Your task to perform on an android device: open chrome and create a bookmark for the current page Image 0: 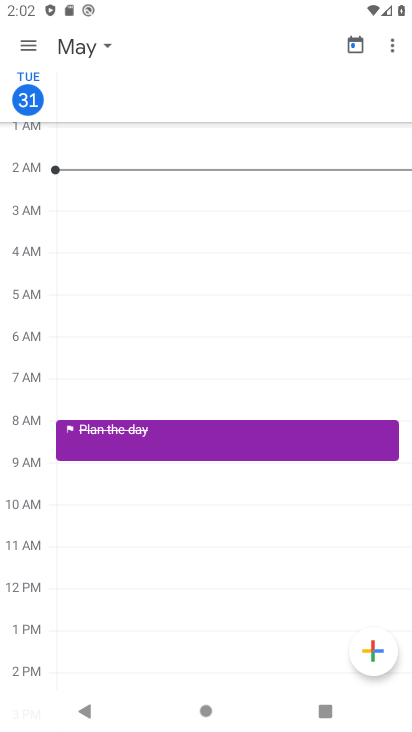
Step 0: press home button
Your task to perform on an android device: open chrome and create a bookmark for the current page Image 1: 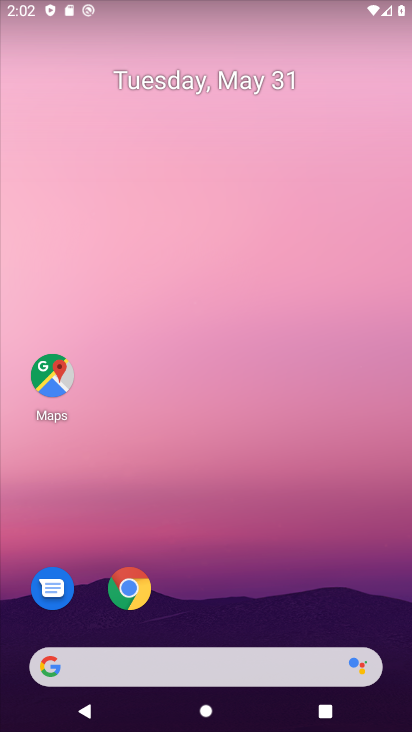
Step 1: click (136, 586)
Your task to perform on an android device: open chrome and create a bookmark for the current page Image 2: 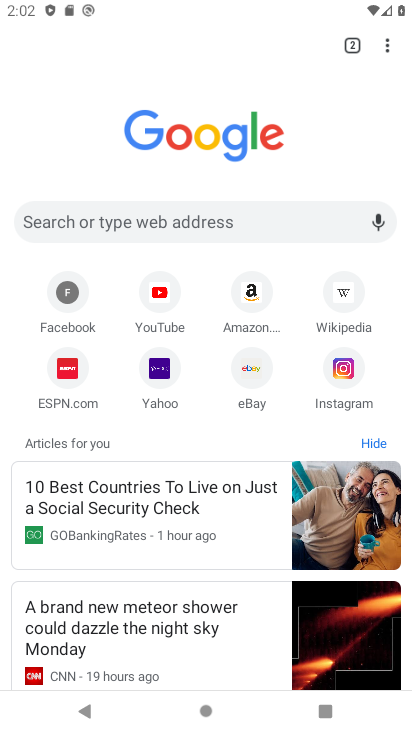
Step 2: click (388, 42)
Your task to perform on an android device: open chrome and create a bookmark for the current page Image 3: 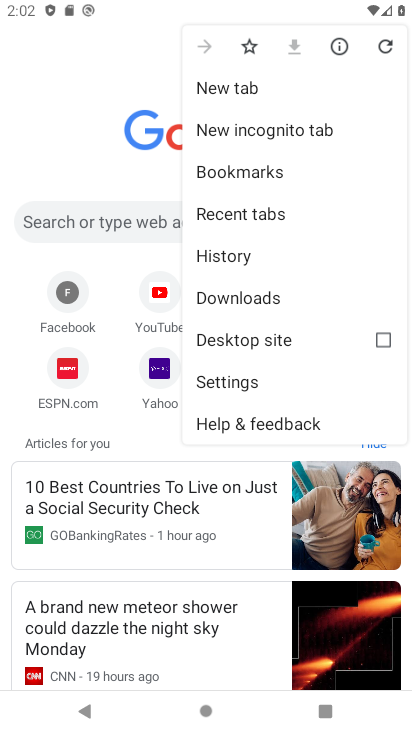
Step 3: click (250, 56)
Your task to perform on an android device: open chrome and create a bookmark for the current page Image 4: 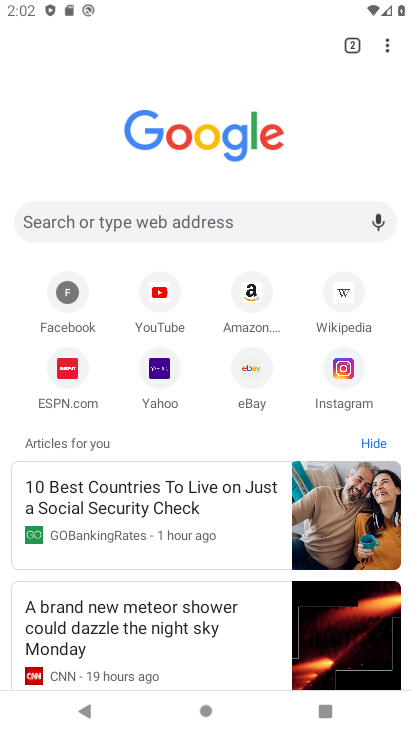
Step 4: task complete